Your task to perform on an android device: Search for floor lamps on article.com Image 0: 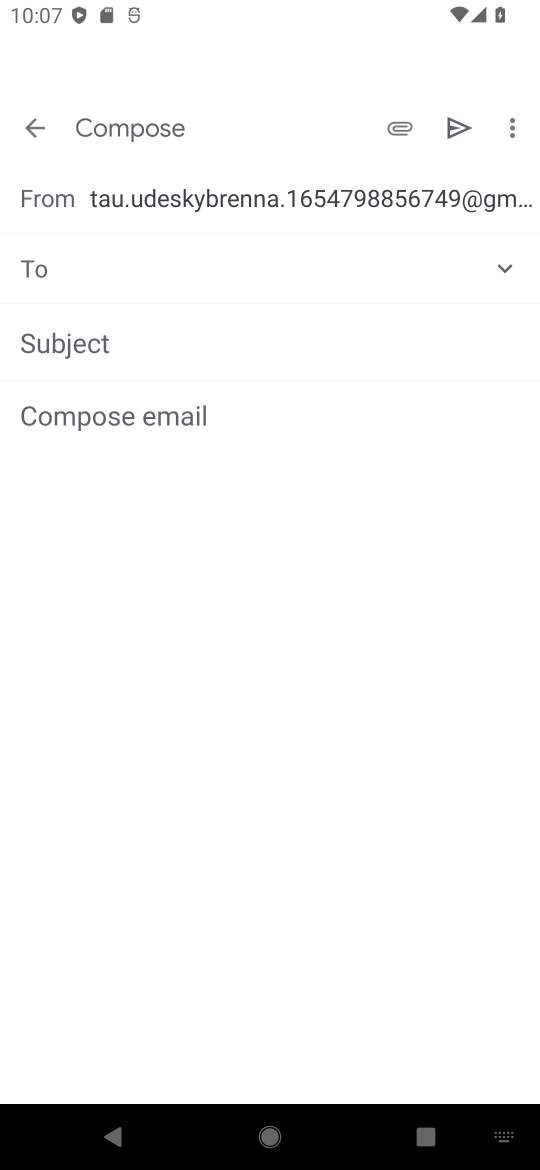
Step 0: press home button
Your task to perform on an android device: Search for floor lamps on article.com Image 1: 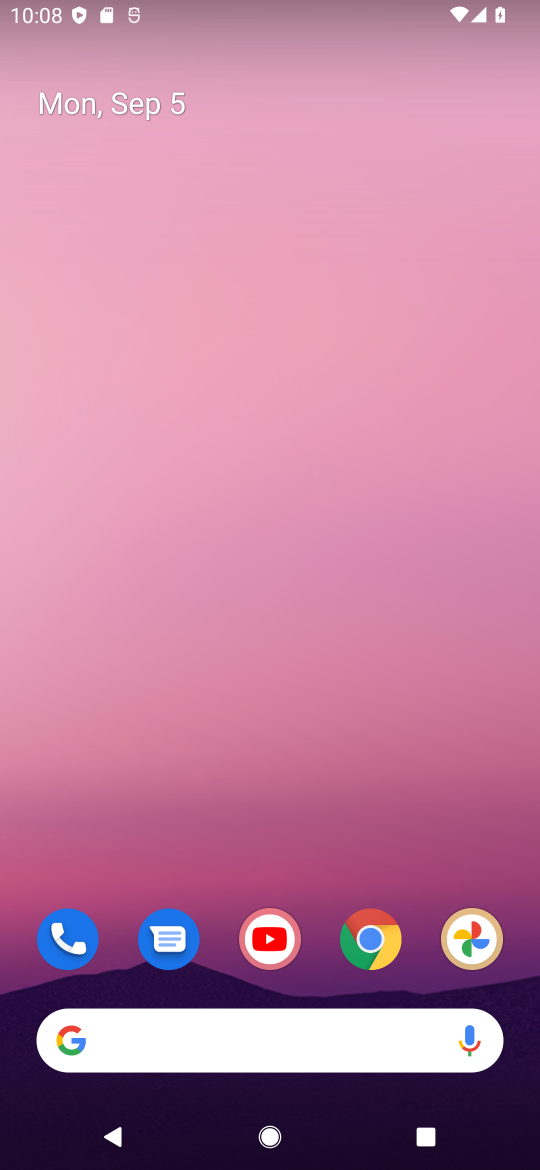
Step 1: drag from (294, 888) to (358, 70)
Your task to perform on an android device: Search for floor lamps on article.com Image 2: 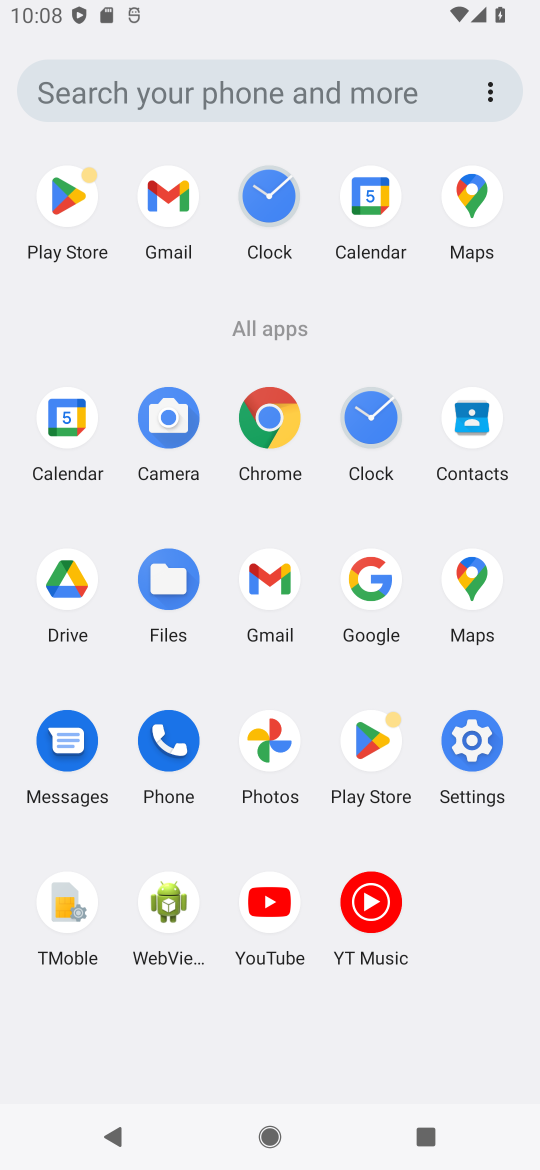
Step 2: click (272, 413)
Your task to perform on an android device: Search for floor lamps on article.com Image 3: 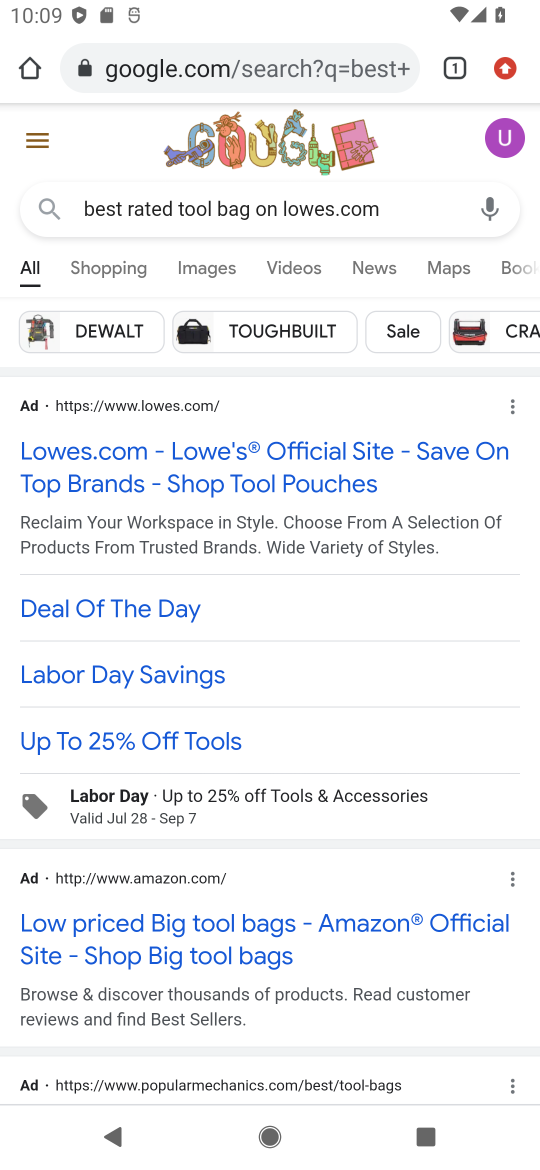
Step 3: task complete